Your task to perform on an android device: see tabs open on other devices in the chrome app Image 0: 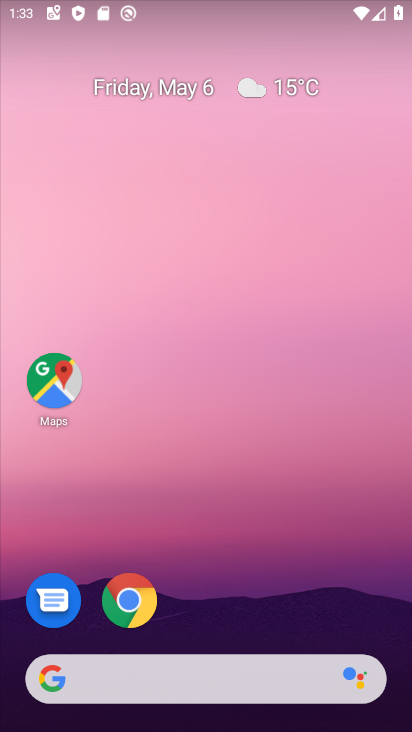
Step 0: drag from (329, 620) to (344, 58)
Your task to perform on an android device: see tabs open on other devices in the chrome app Image 1: 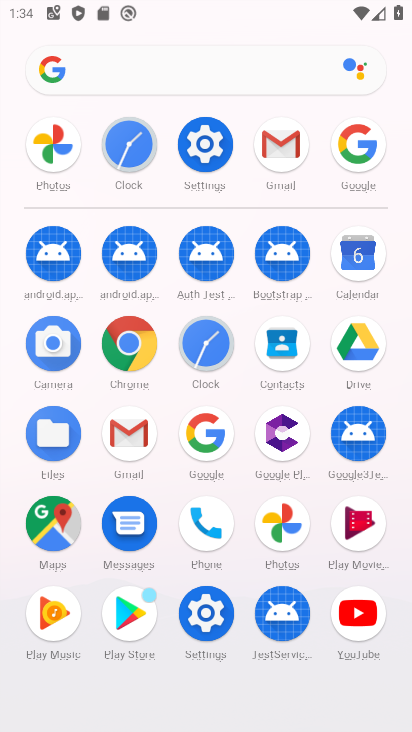
Step 1: click (143, 362)
Your task to perform on an android device: see tabs open on other devices in the chrome app Image 2: 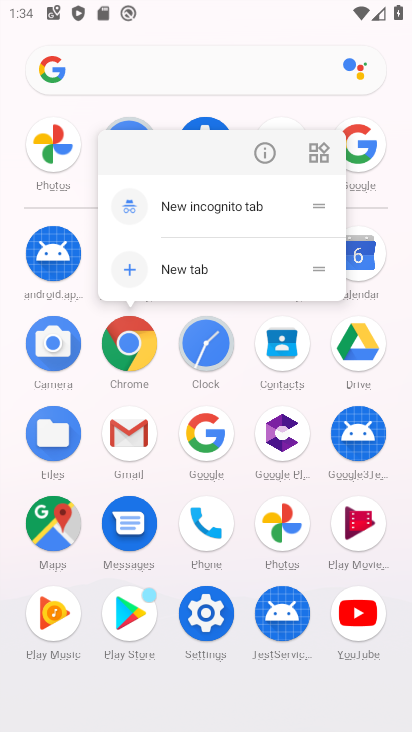
Step 2: click (143, 362)
Your task to perform on an android device: see tabs open on other devices in the chrome app Image 3: 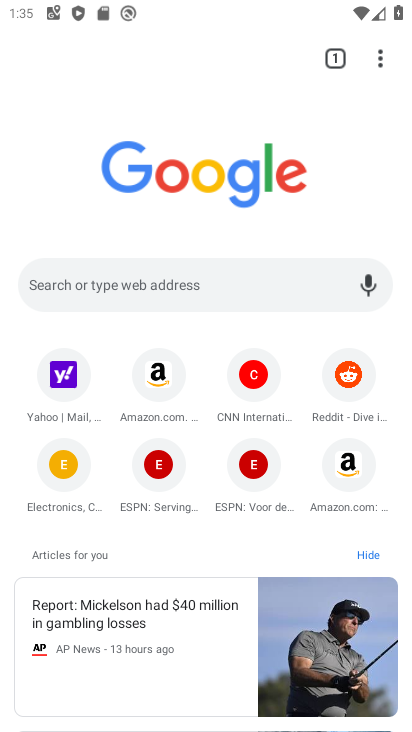
Step 3: task complete